Your task to perform on an android device: Go to settings Image 0: 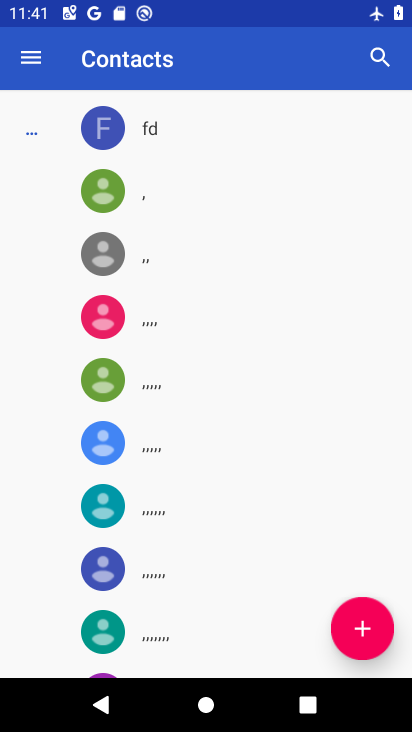
Step 0: press home button
Your task to perform on an android device: Go to settings Image 1: 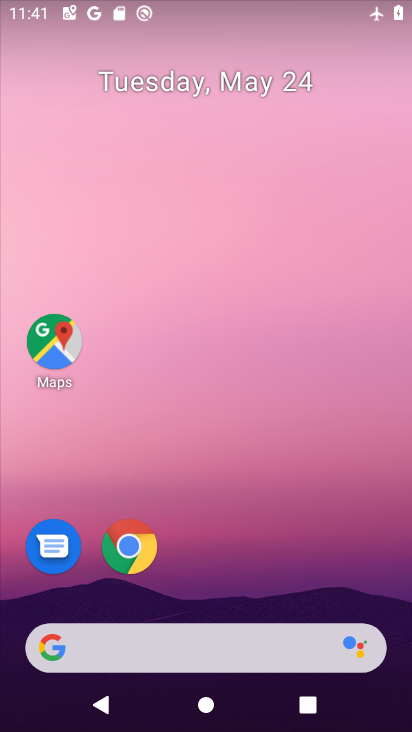
Step 1: drag from (192, 583) to (286, 4)
Your task to perform on an android device: Go to settings Image 2: 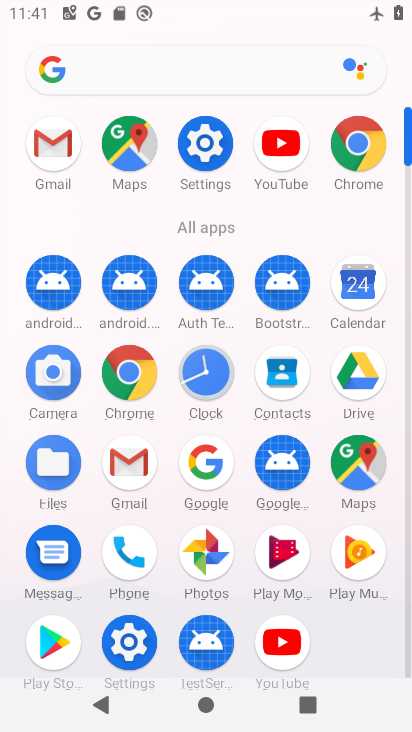
Step 2: click (204, 162)
Your task to perform on an android device: Go to settings Image 3: 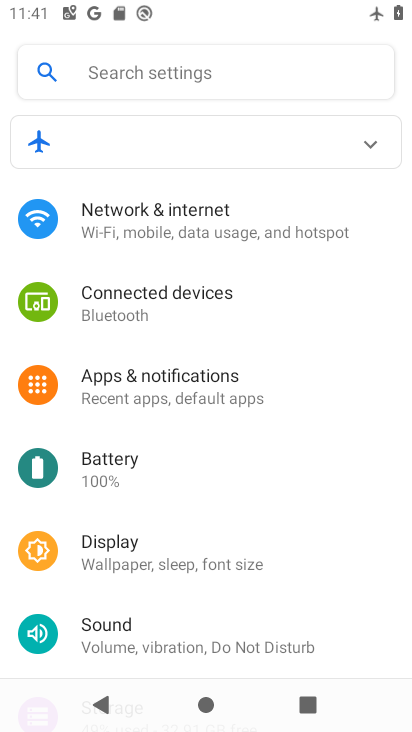
Step 3: task complete